Your task to perform on an android device: toggle priority inbox in the gmail app Image 0: 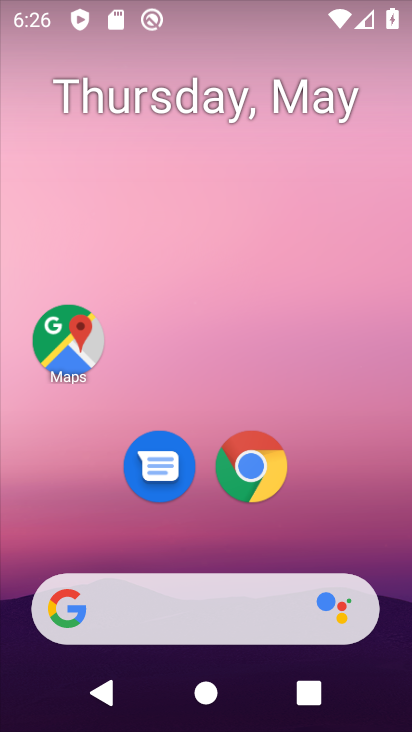
Step 0: drag from (335, 495) to (235, 10)
Your task to perform on an android device: toggle priority inbox in the gmail app Image 1: 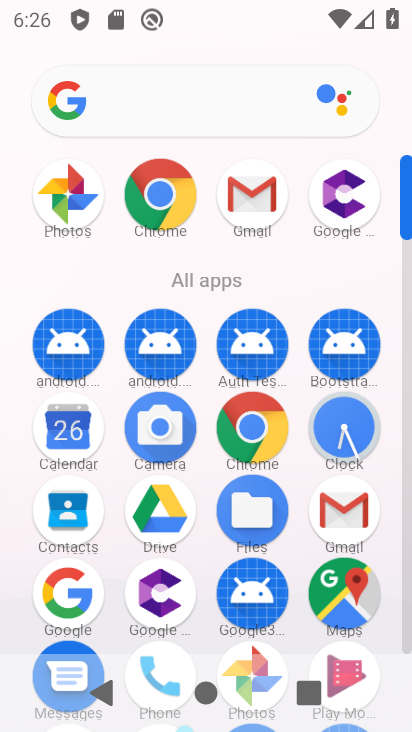
Step 1: click (246, 196)
Your task to perform on an android device: toggle priority inbox in the gmail app Image 2: 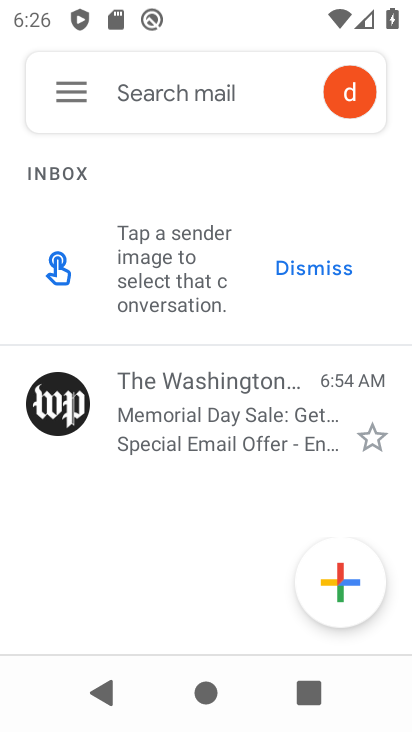
Step 2: click (70, 89)
Your task to perform on an android device: toggle priority inbox in the gmail app Image 3: 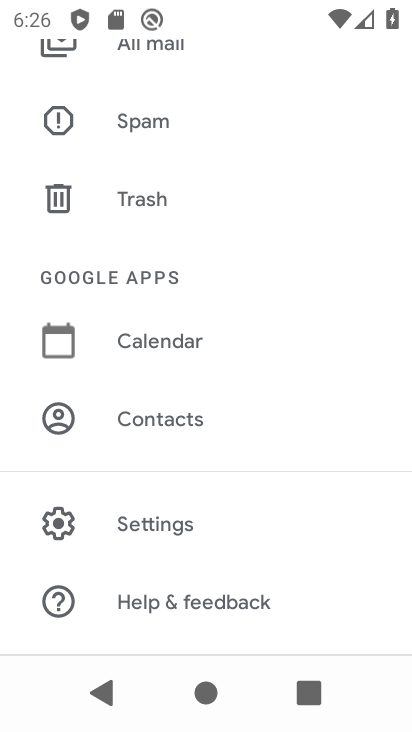
Step 3: click (145, 516)
Your task to perform on an android device: toggle priority inbox in the gmail app Image 4: 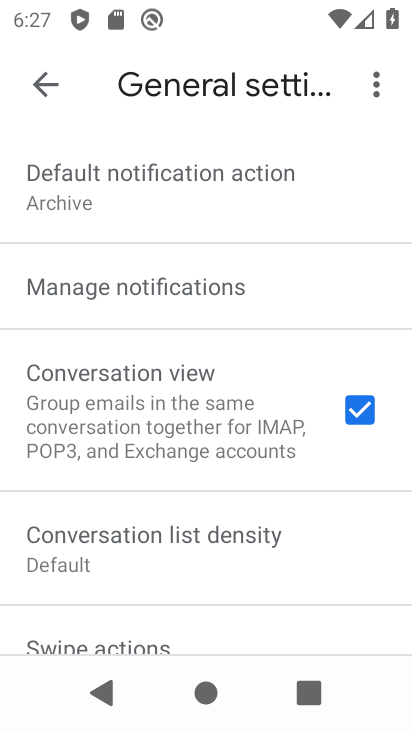
Step 4: click (39, 87)
Your task to perform on an android device: toggle priority inbox in the gmail app Image 5: 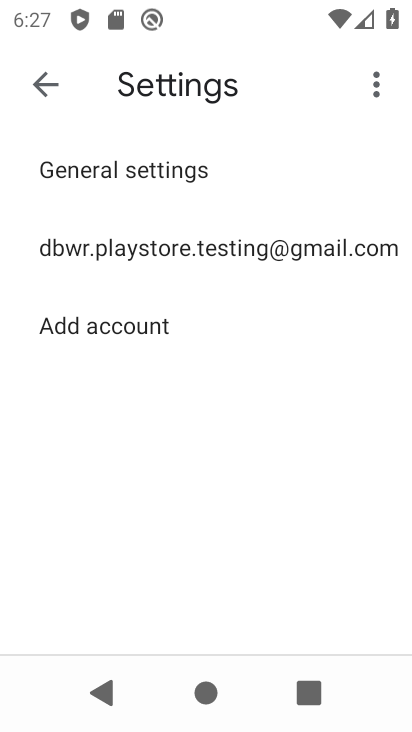
Step 5: click (123, 248)
Your task to perform on an android device: toggle priority inbox in the gmail app Image 6: 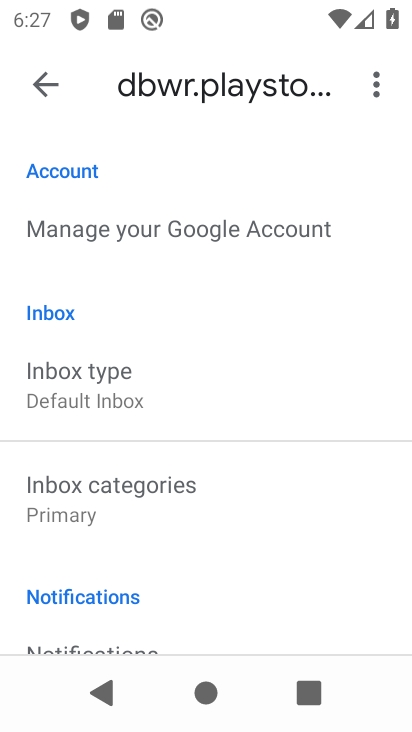
Step 6: click (87, 377)
Your task to perform on an android device: toggle priority inbox in the gmail app Image 7: 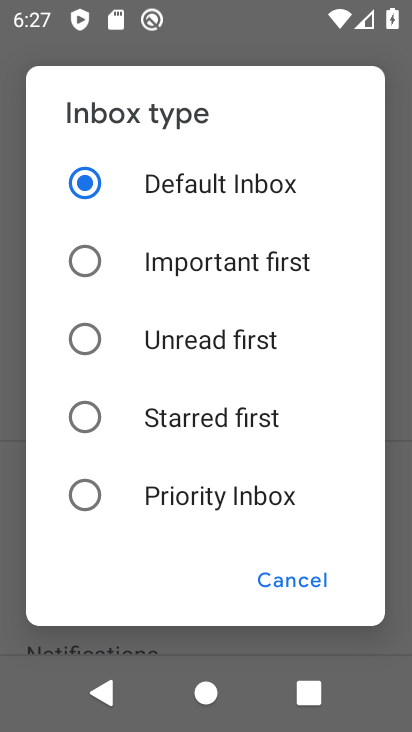
Step 7: click (89, 495)
Your task to perform on an android device: toggle priority inbox in the gmail app Image 8: 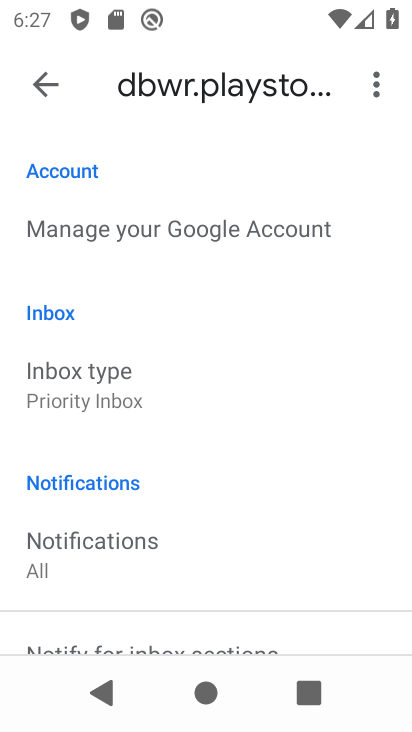
Step 8: task complete